Your task to perform on an android device: change notifications settings Image 0: 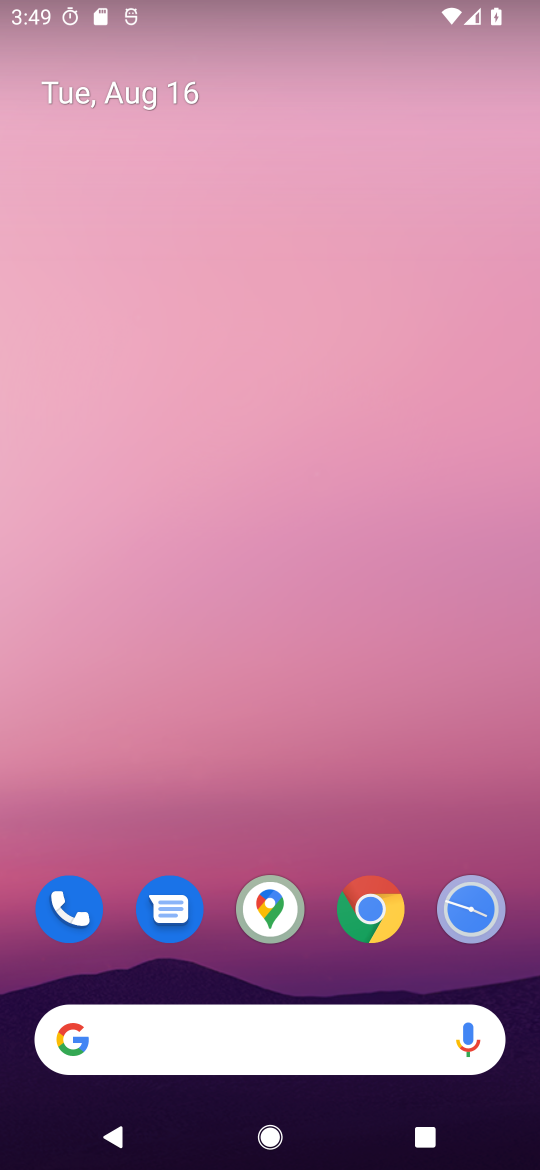
Step 0: drag from (251, 718) to (202, 57)
Your task to perform on an android device: change notifications settings Image 1: 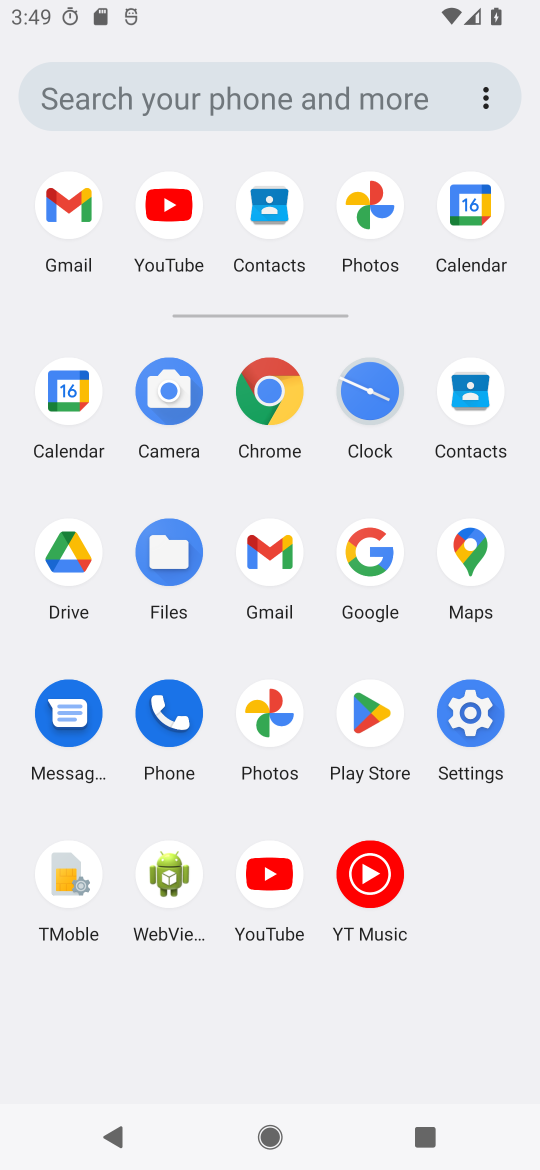
Step 1: click (459, 716)
Your task to perform on an android device: change notifications settings Image 2: 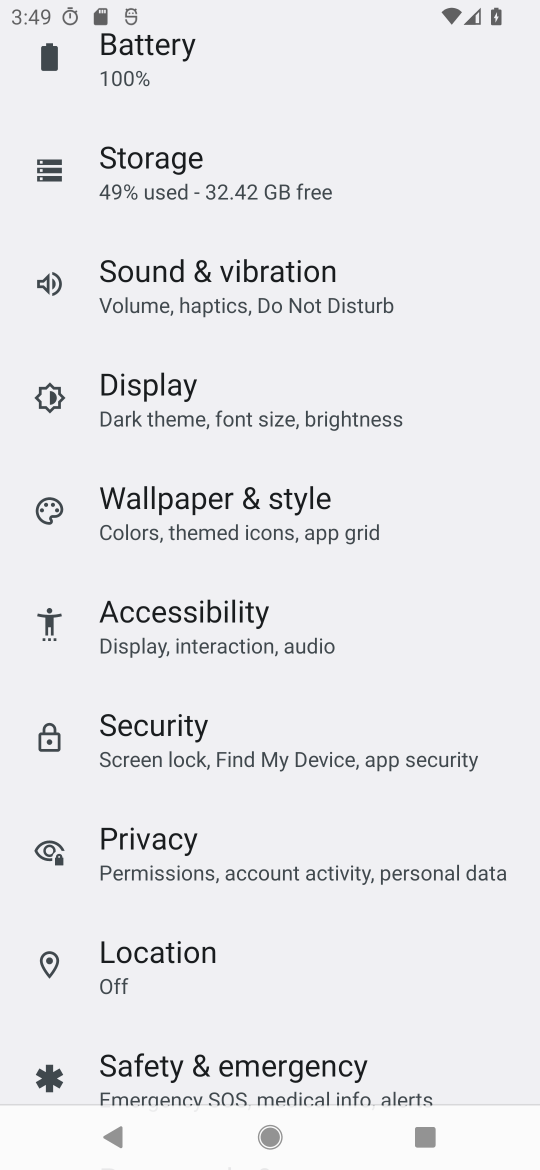
Step 2: drag from (296, 707) to (303, 182)
Your task to perform on an android device: change notifications settings Image 3: 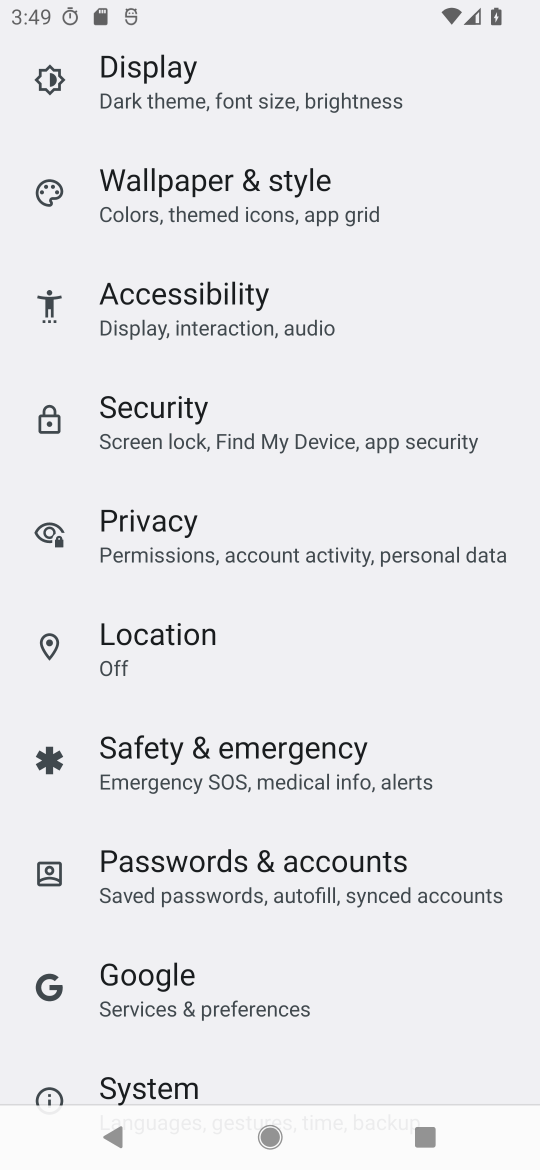
Step 3: drag from (299, 864) to (302, 274)
Your task to perform on an android device: change notifications settings Image 4: 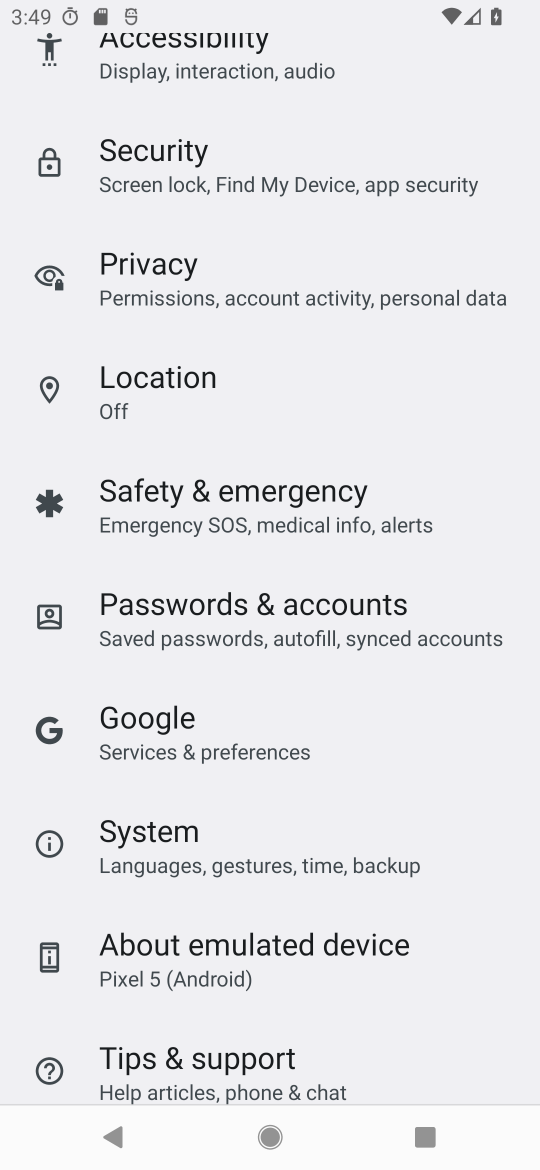
Step 4: drag from (371, 904) to (377, 281)
Your task to perform on an android device: change notifications settings Image 5: 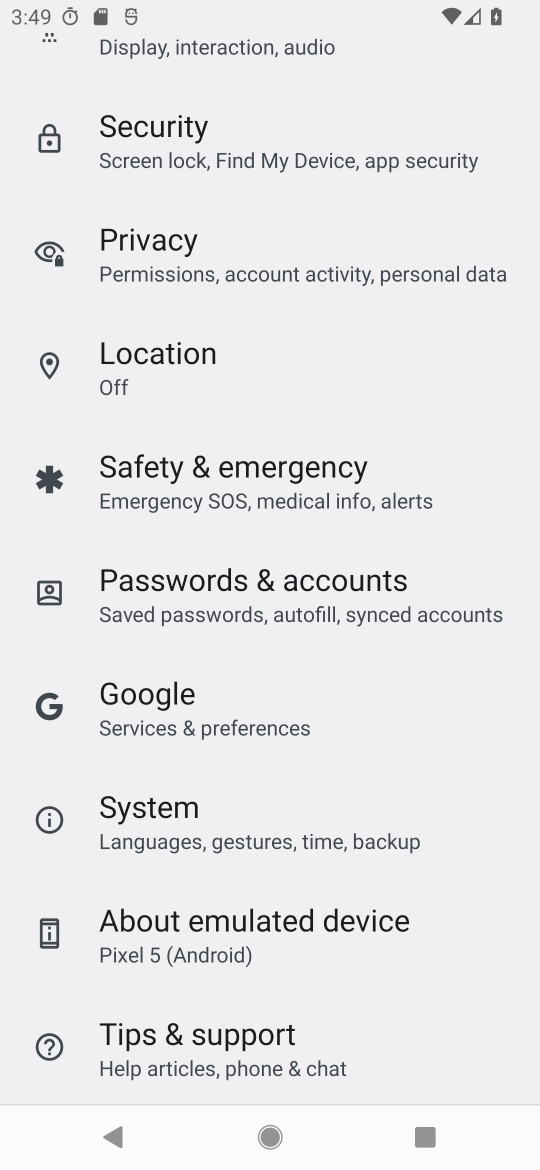
Step 5: drag from (332, 379) to (337, 993)
Your task to perform on an android device: change notifications settings Image 6: 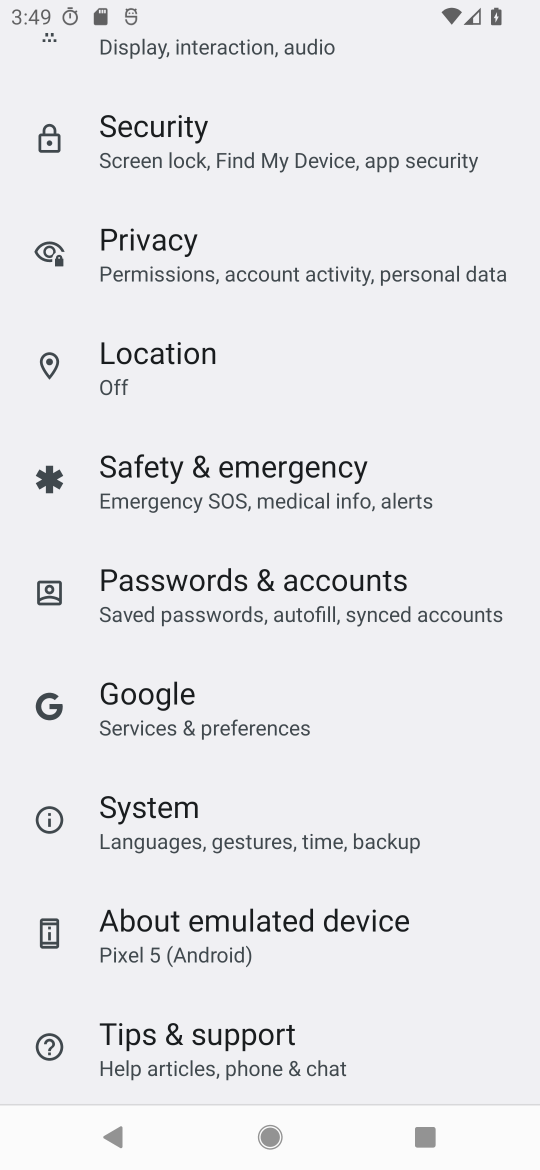
Step 6: drag from (386, 351) to (306, 1155)
Your task to perform on an android device: change notifications settings Image 7: 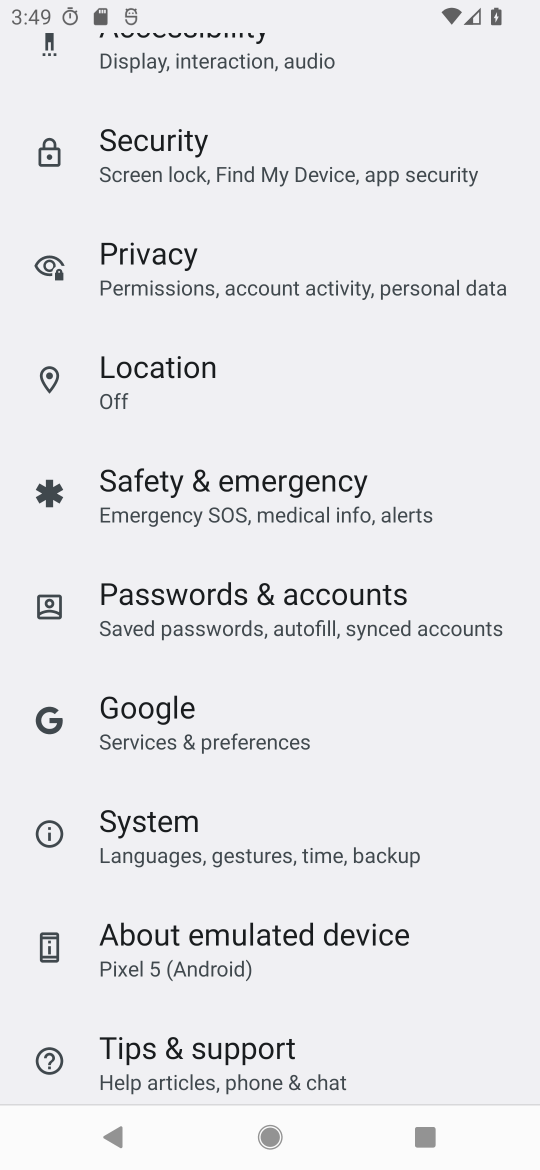
Step 7: drag from (305, 105) to (303, 976)
Your task to perform on an android device: change notifications settings Image 8: 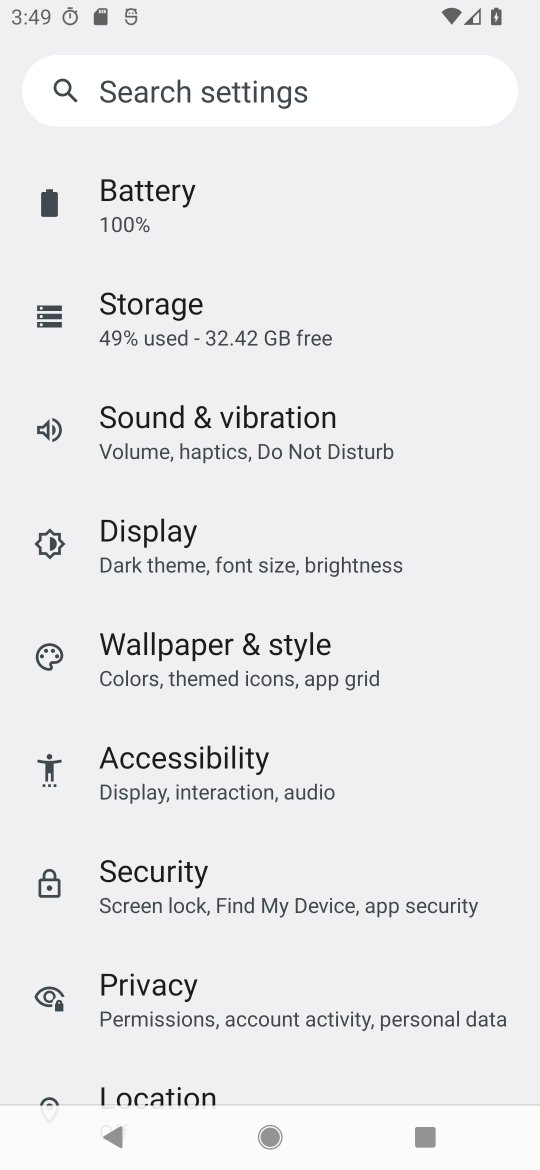
Step 8: drag from (275, 224) to (289, 1099)
Your task to perform on an android device: change notifications settings Image 9: 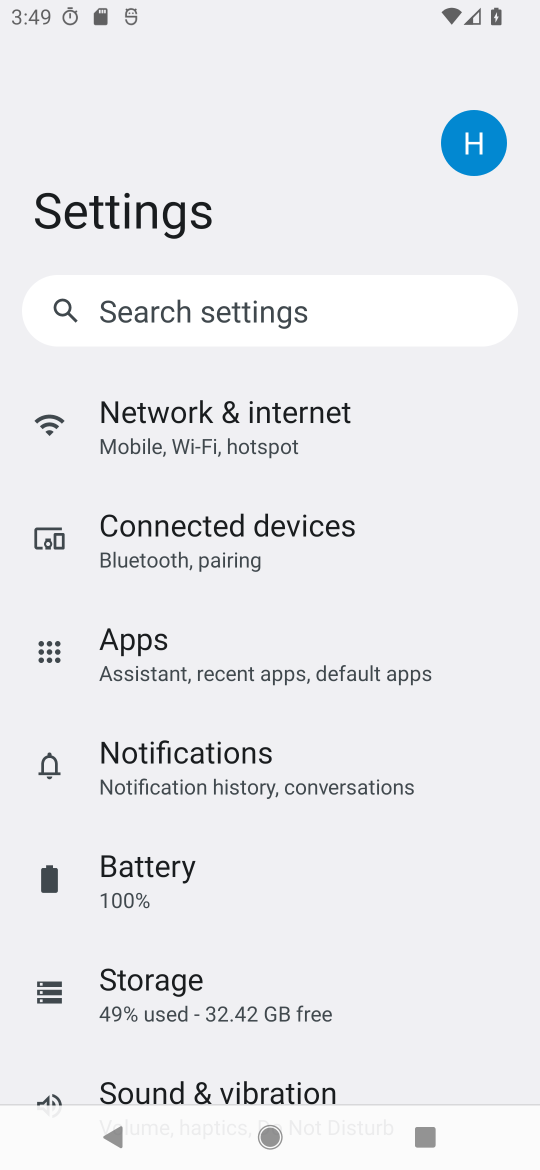
Step 9: click (264, 795)
Your task to perform on an android device: change notifications settings Image 10: 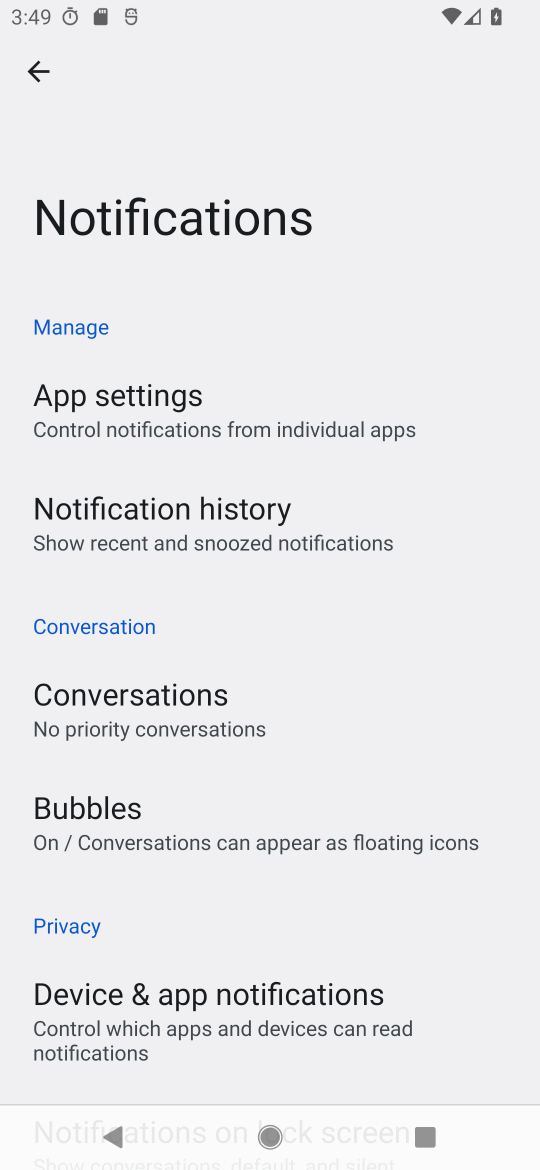
Step 10: drag from (423, 920) to (402, 478)
Your task to perform on an android device: change notifications settings Image 11: 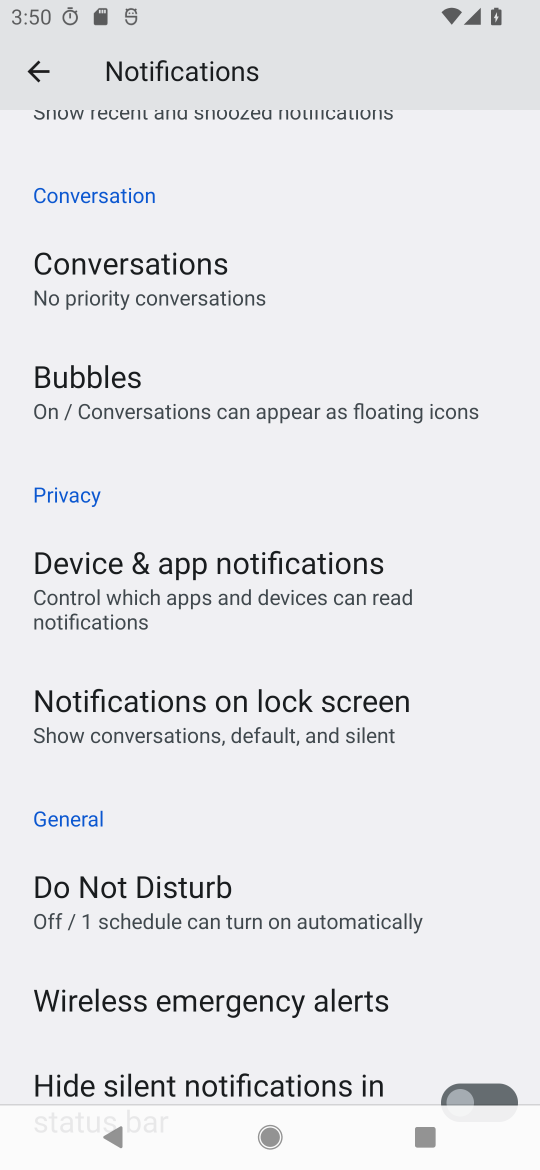
Step 11: click (244, 721)
Your task to perform on an android device: change notifications settings Image 12: 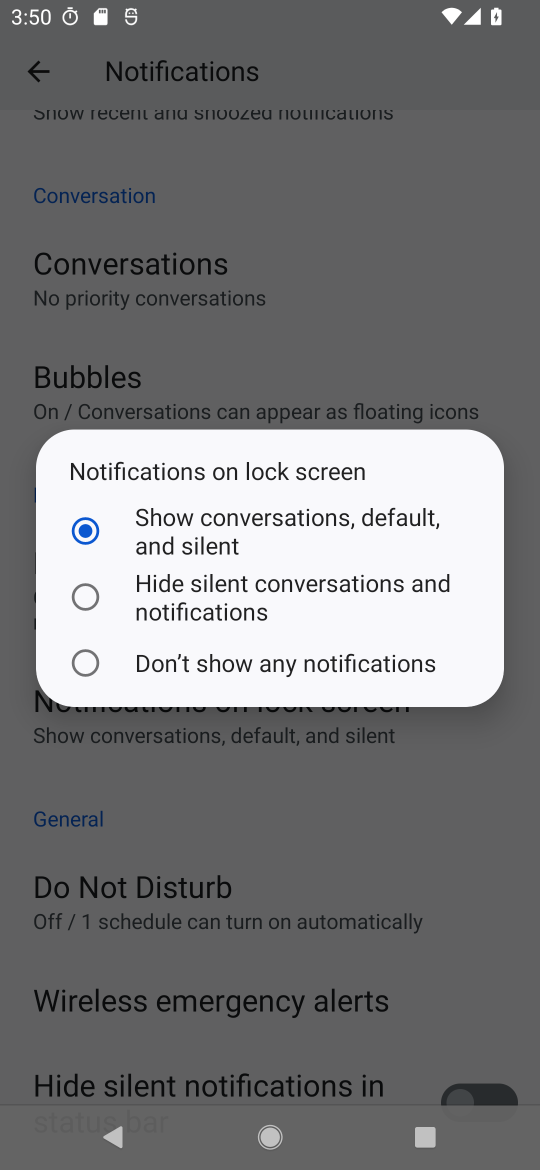
Step 12: click (91, 672)
Your task to perform on an android device: change notifications settings Image 13: 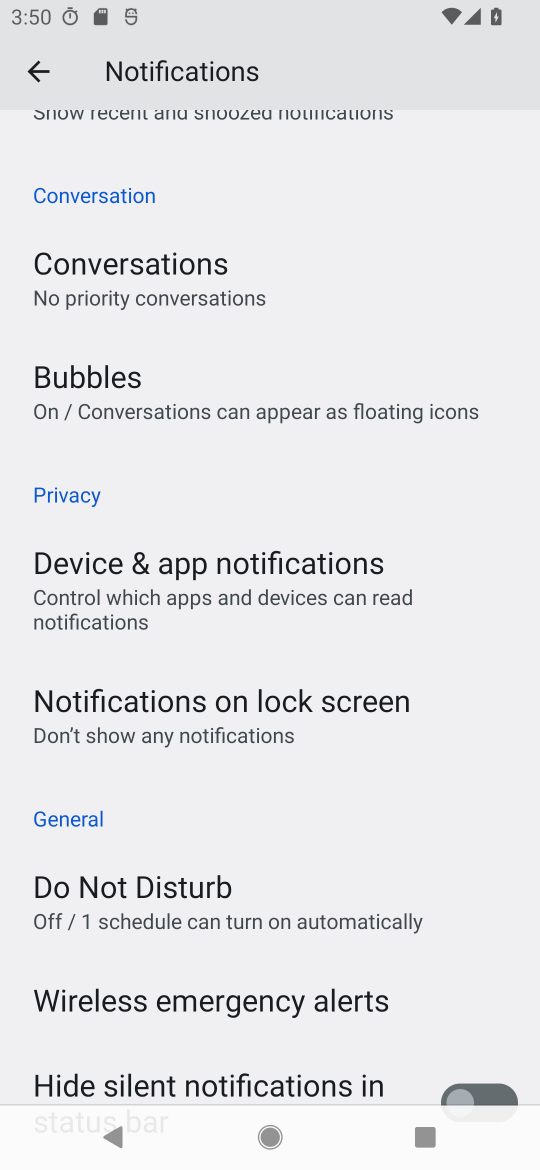
Step 13: task complete